Your task to perform on an android device: turn on translation in the chrome app Image 0: 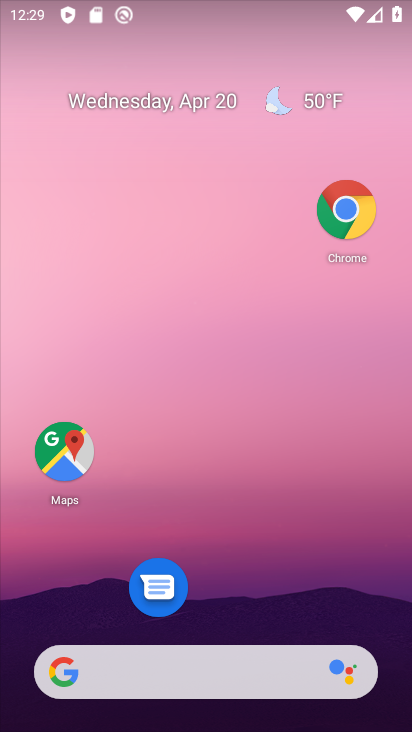
Step 0: click (350, 207)
Your task to perform on an android device: turn on translation in the chrome app Image 1: 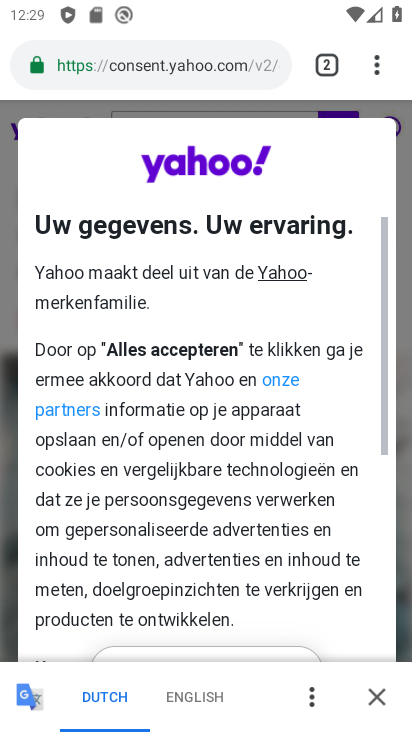
Step 1: click (377, 67)
Your task to perform on an android device: turn on translation in the chrome app Image 2: 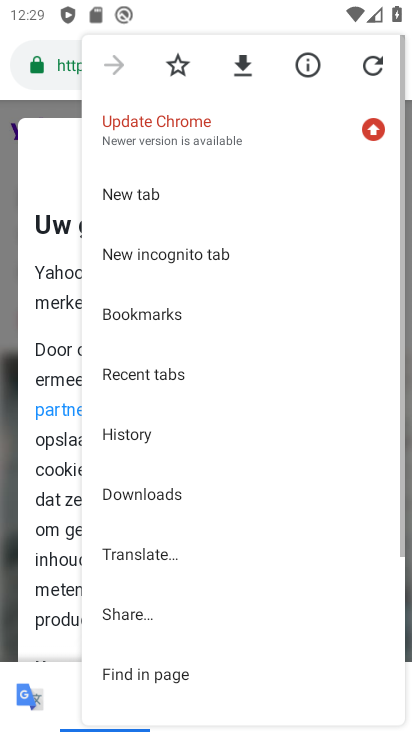
Step 2: drag from (154, 631) to (239, 203)
Your task to perform on an android device: turn on translation in the chrome app Image 3: 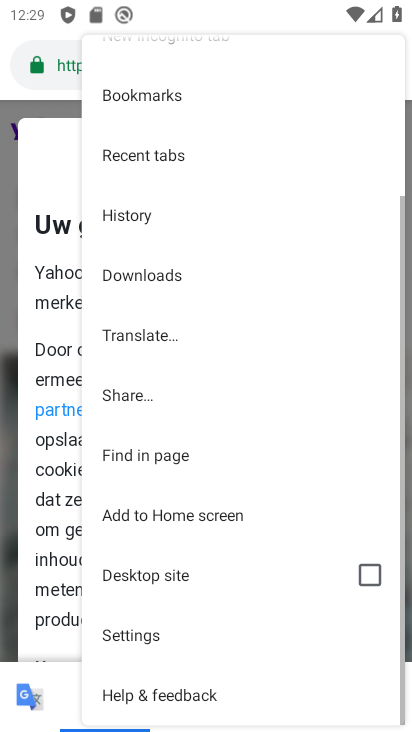
Step 3: click (140, 640)
Your task to perform on an android device: turn on translation in the chrome app Image 4: 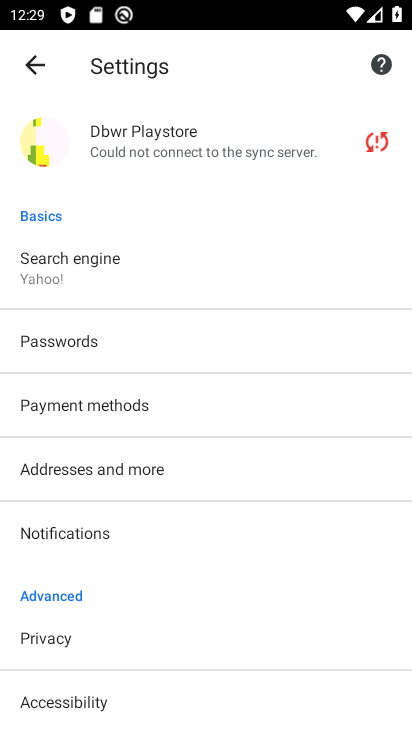
Step 4: drag from (96, 605) to (139, 310)
Your task to perform on an android device: turn on translation in the chrome app Image 5: 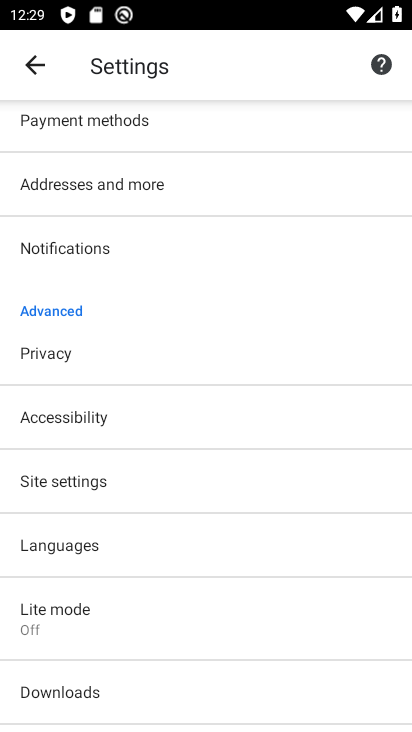
Step 5: click (78, 538)
Your task to perform on an android device: turn on translation in the chrome app Image 6: 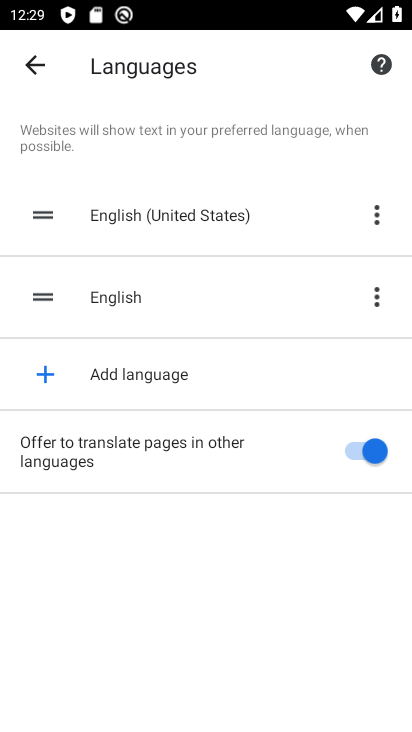
Step 6: task complete